Your task to perform on an android device: open app "Microsoft Outlook" (install if not already installed) Image 0: 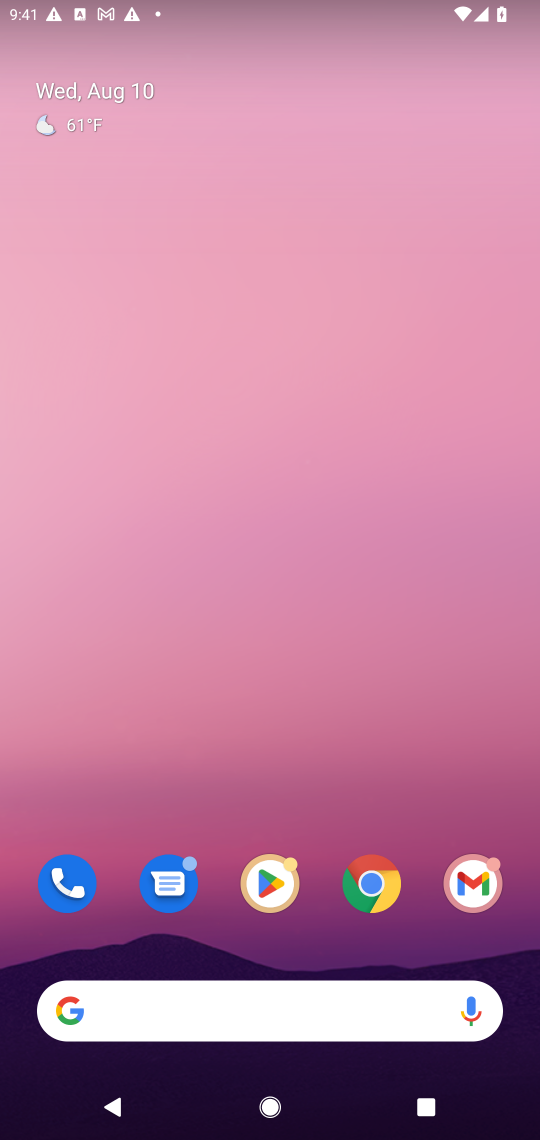
Step 0: click (292, 868)
Your task to perform on an android device: open app "Microsoft Outlook" (install if not already installed) Image 1: 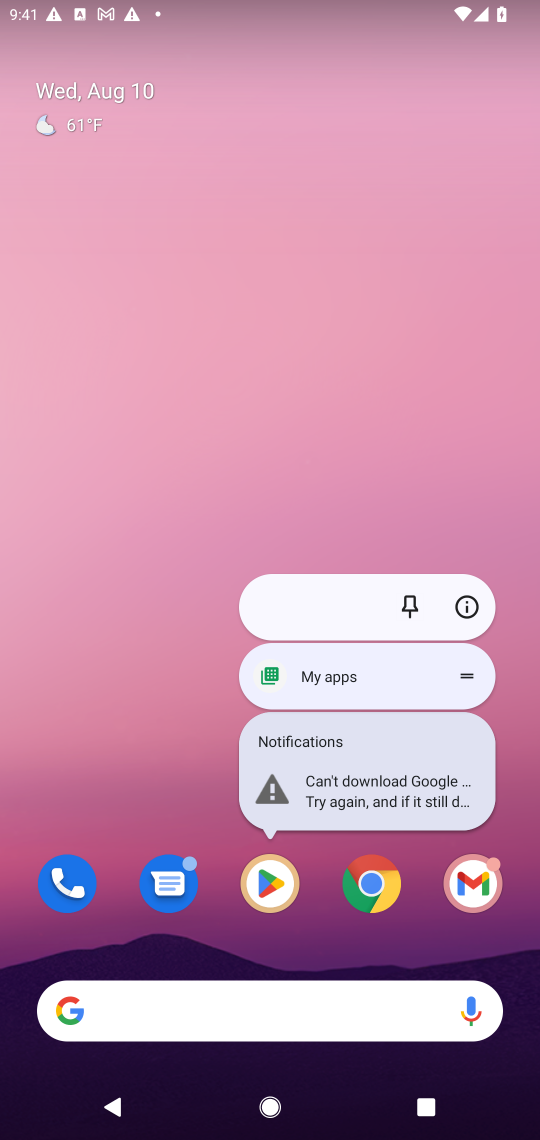
Step 1: click (269, 889)
Your task to perform on an android device: open app "Microsoft Outlook" (install if not already installed) Image 2: 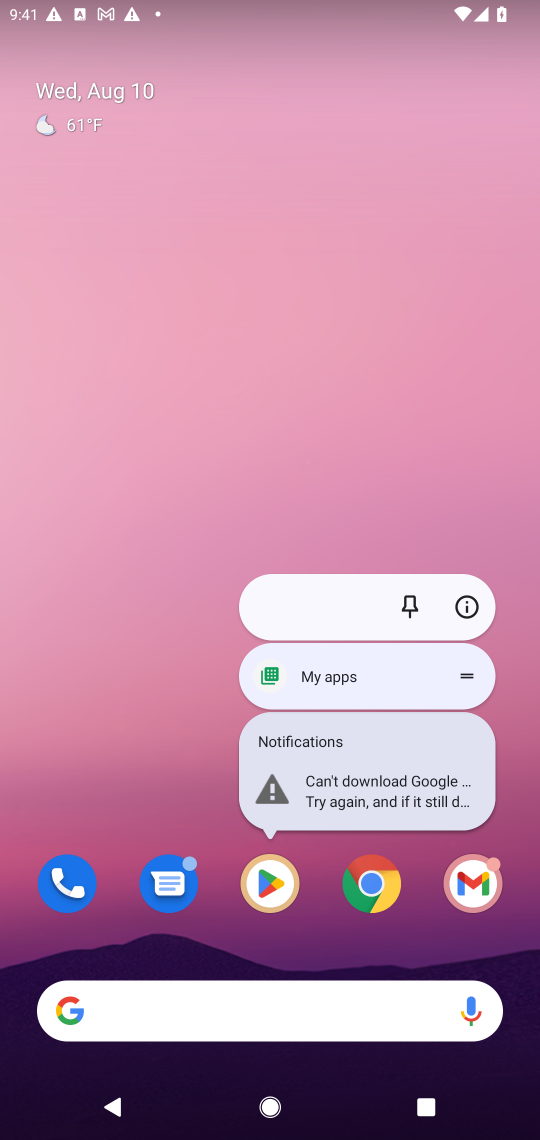
Step 2: click (269, 889)
Your task to perform on an android device: open app "Microsoft Outlook" (install if not already installed) Image 3: 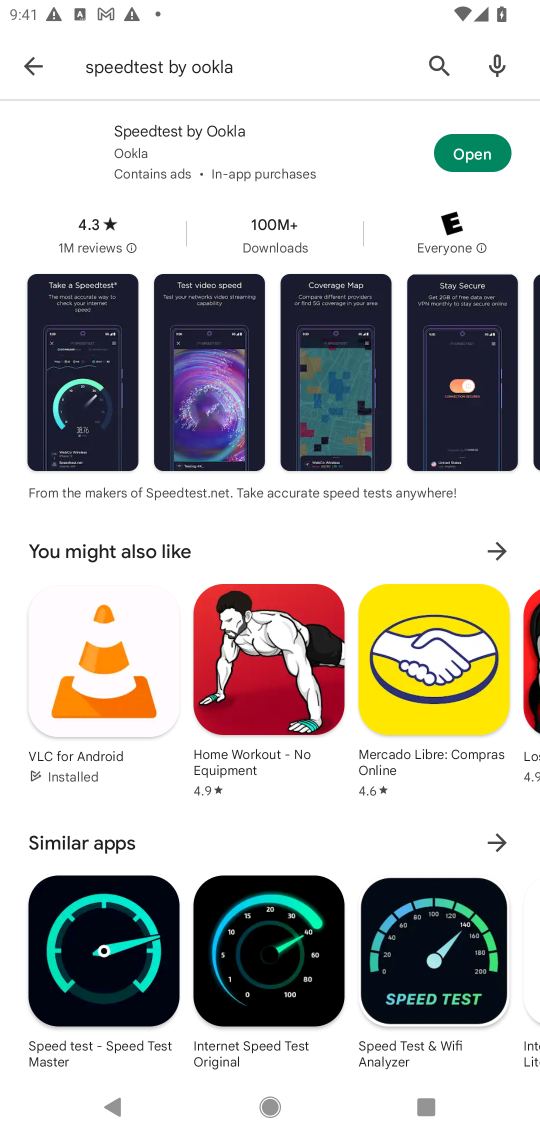
Step 3: click (443, 69)
Your task to perform on an android device: open app "Microsoft Outlook" (install if not already installed) Image 4: 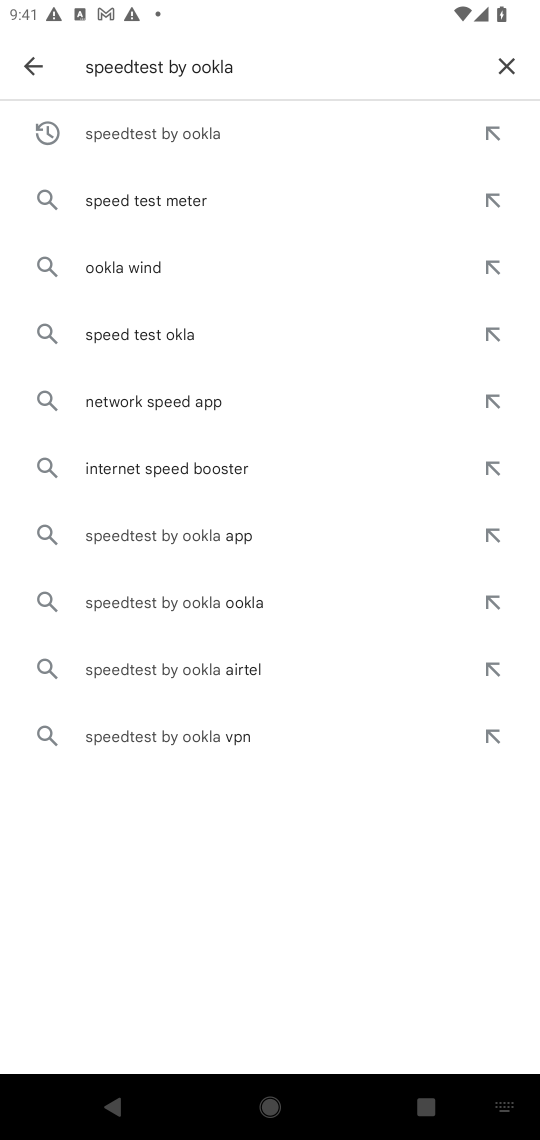
Step 4: click (491, 60)
Your task to perform on an android device: open app "Microsoft Outlook" (install if not already installed) Image 5: 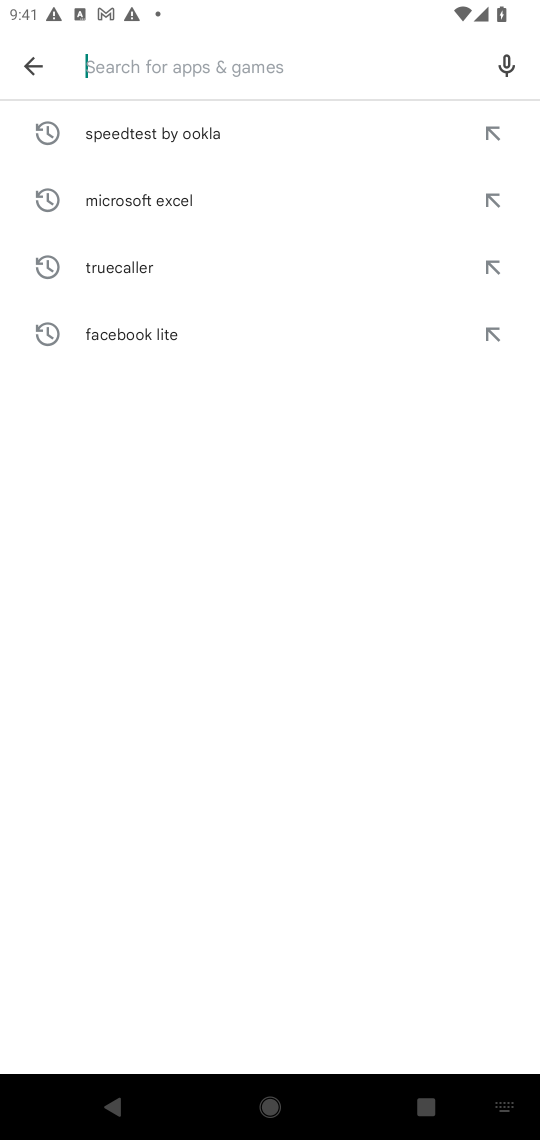
Step 5: type "Microsoft Outlook"
Your task to perform on an android device: open app "Microsoft Outlook" (install if not already installed) Image 6: 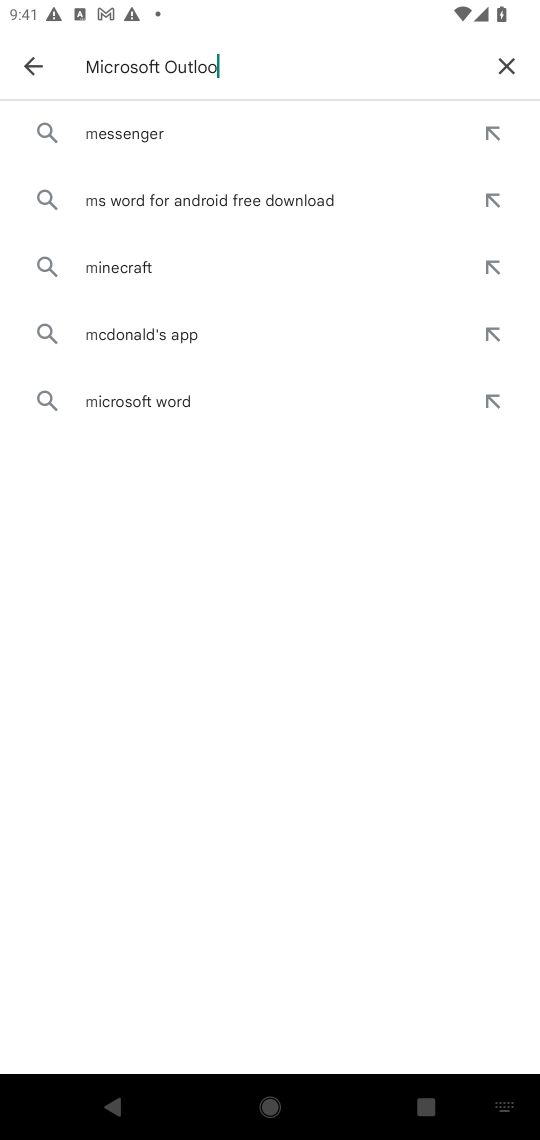
Step 6: type ""
Your task to perform on an android device: open app "Microsoft Outlook" (install if not already installed) Image 7: 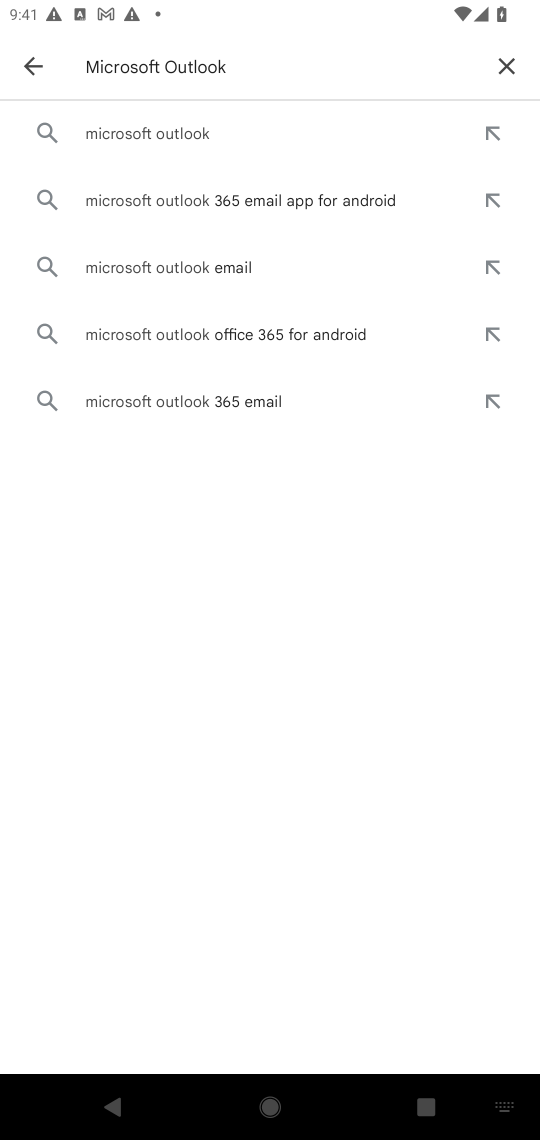
Step 7: click (216, 136)
Your task to perform on an android device: open app "Microsoft Outlook" (install if not already installed) Image 8: 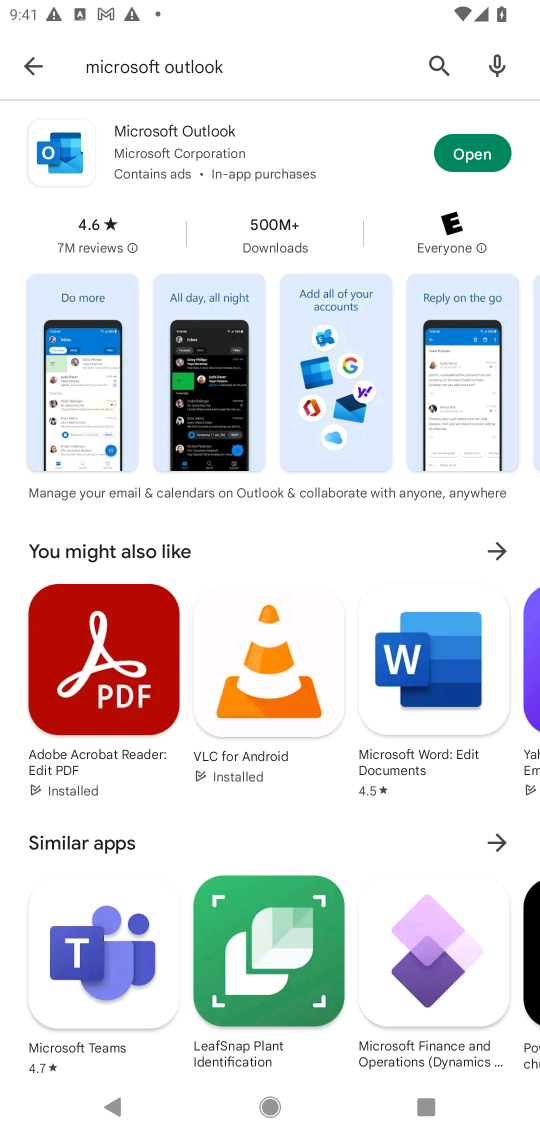
Step 8: click (493, 142)
Your task to perform on an android device: open app "Microsoft Outlook" (install if not already installed) Image 9: 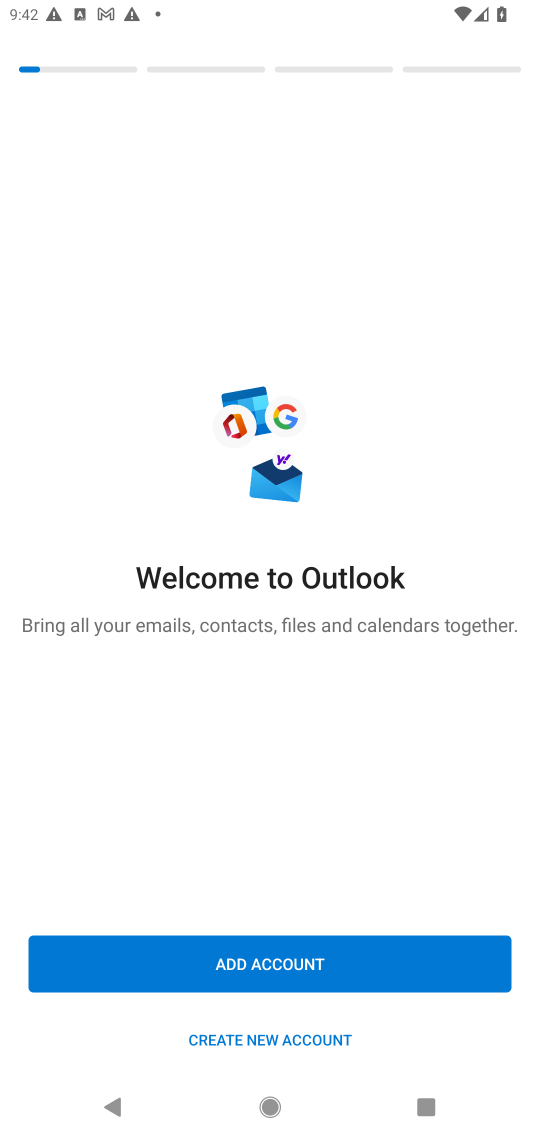
Step 9: task complete